Your task to perform on an android device: Open Youtube and go to "Your channel" Image 0: 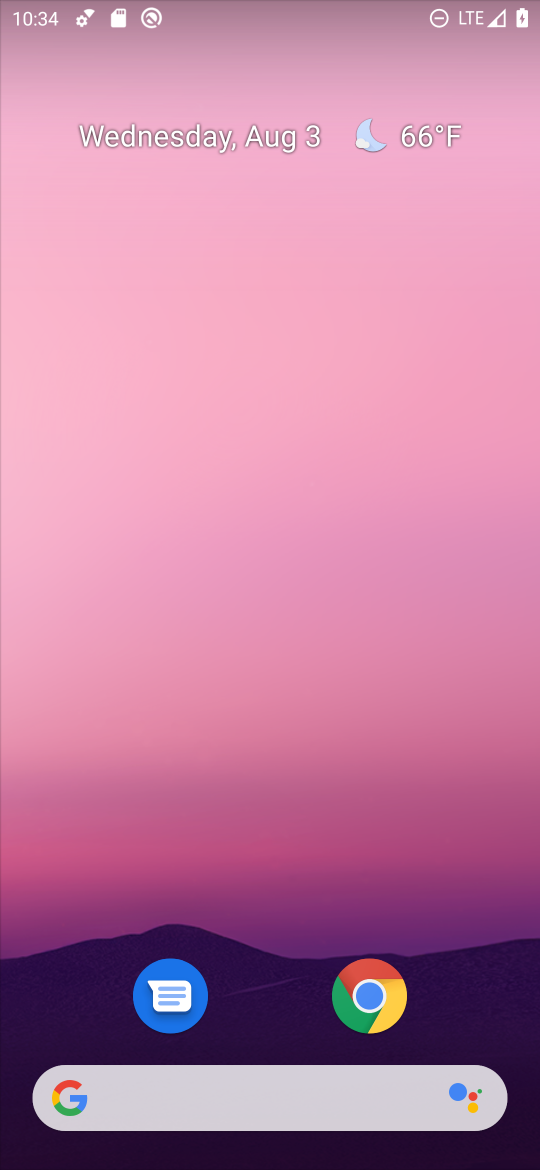
Step 0: drag from (293, 806) to (340, 22)
Your task to perform on an android device: Open Youtube and go to "Your channel" Image 1: 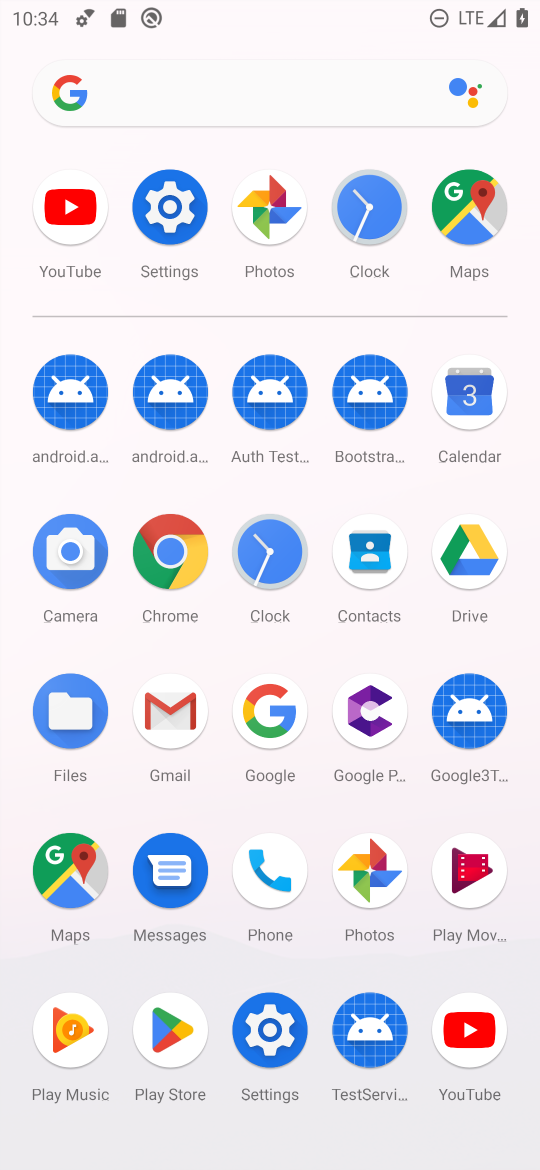
Step 1: click (86, 213)
Your task to perform on an android device: Open Youtube and go to "Your channel" Image 2: 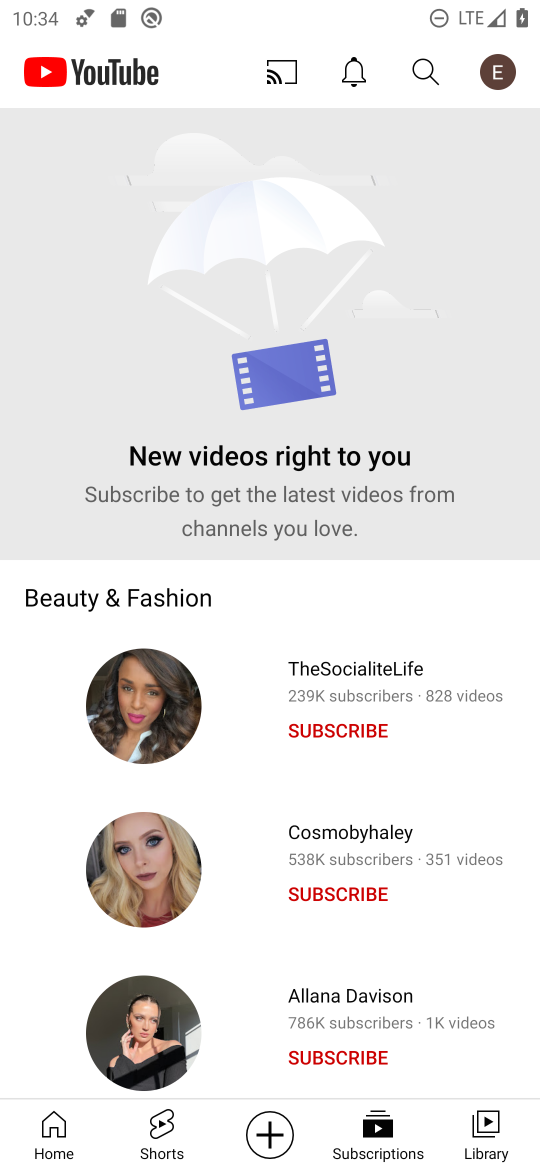
Step 2: click (494, 76)
Your task to perform on an android device: Open Youtube and go to "Your channel" Image 3: 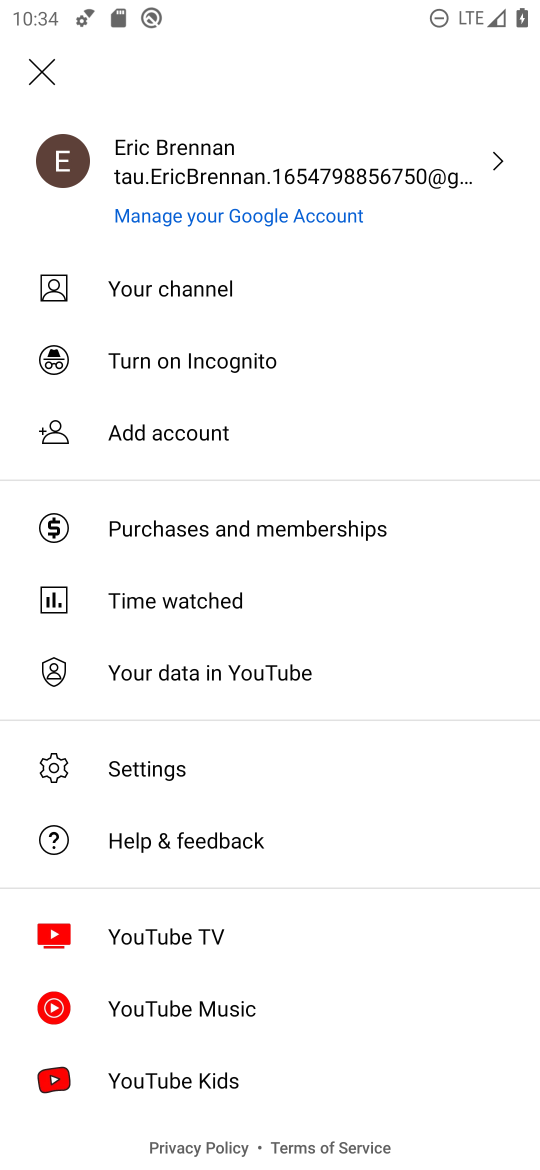
Step 3: click (202, 290)
Your task to perform on an android device: Open Youtube and go to "Your channel" Image 4: 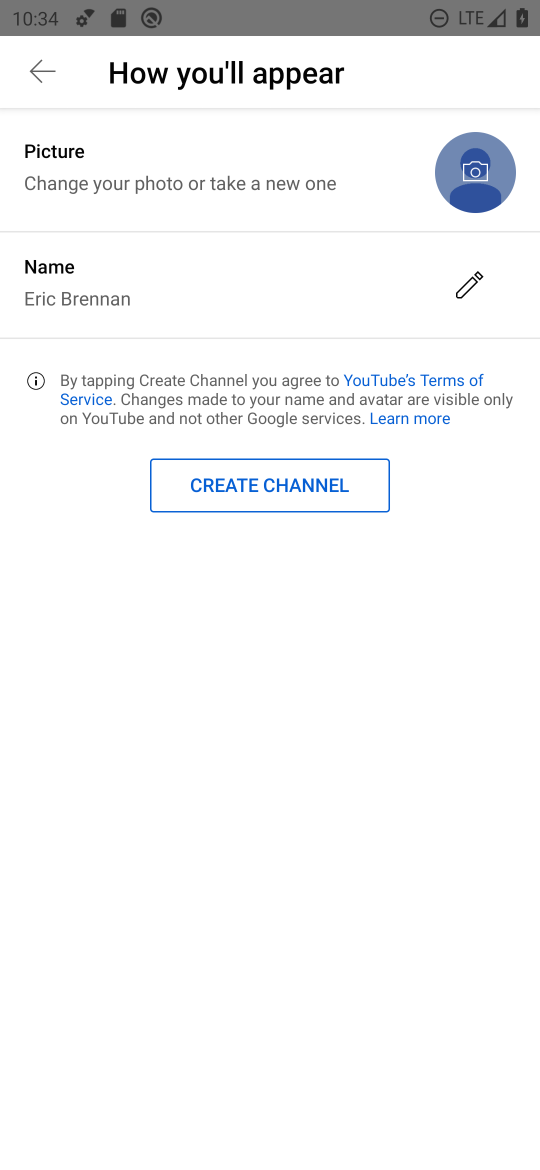
Step 4: task complete